Your task to perform on an android device: Search for "beats solo 3" on newegg.com, select the first entry, and add it to the cart. Image 0: 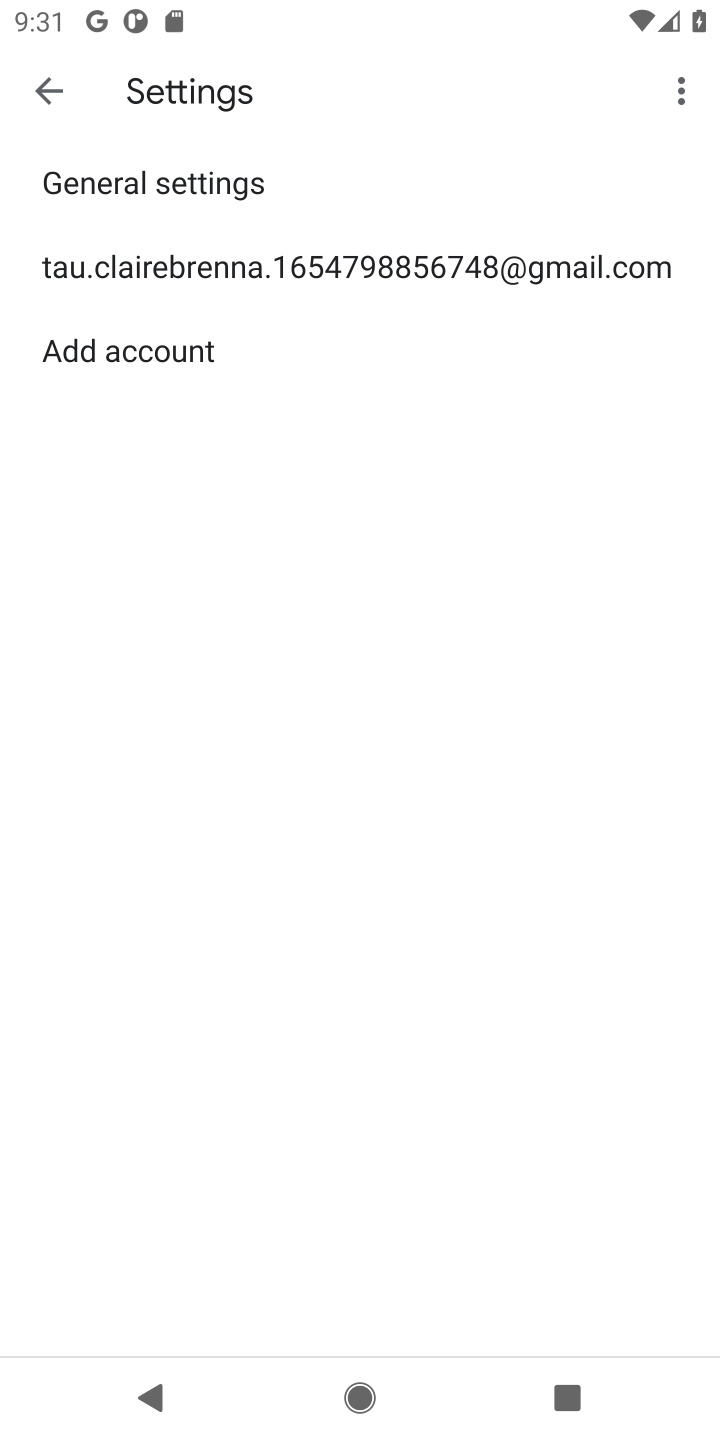
Step 0: press home button
Your task to perform on an android device: Search for "beats solo 3" on newegg.com, select the first entry, and add it to the cart. Image 1: 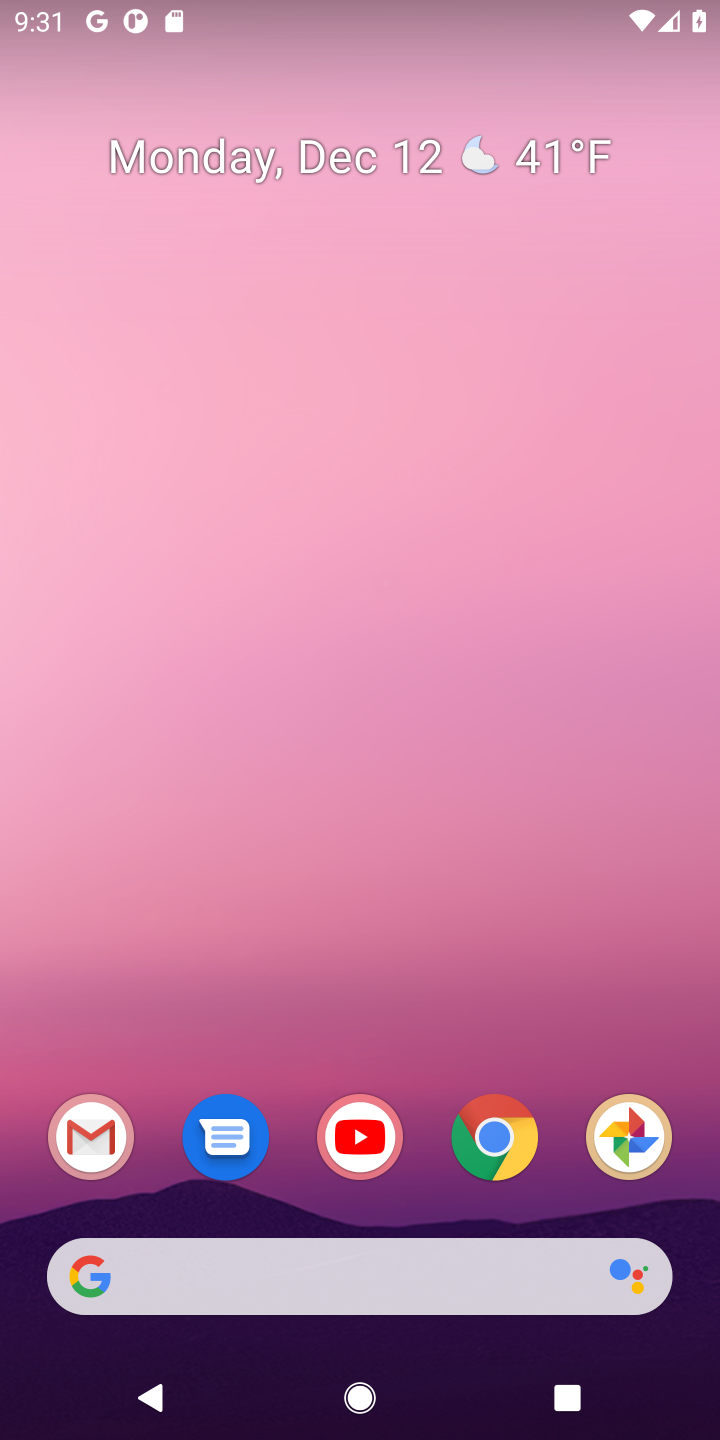
Step 1: click (500, 1121)
Your task to perform on an android device: Search for "beats solo 3" on newegg.com, select the first entry, and add it to the cart. Image 2: 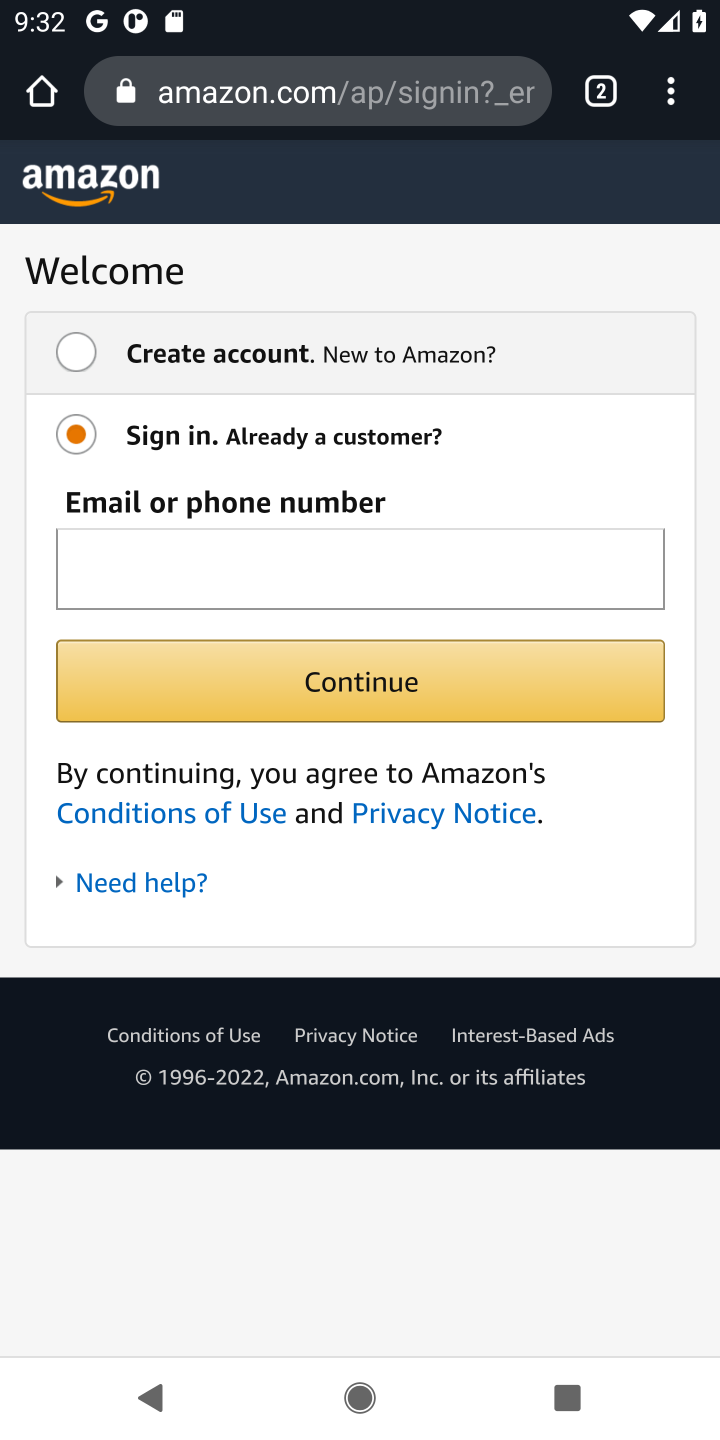
Step 2: click (299, 84)
Your task to perform on an android device: Search for "beats solo 3" on newegg.com, select the first entry, and add it to the cart. Image 3: 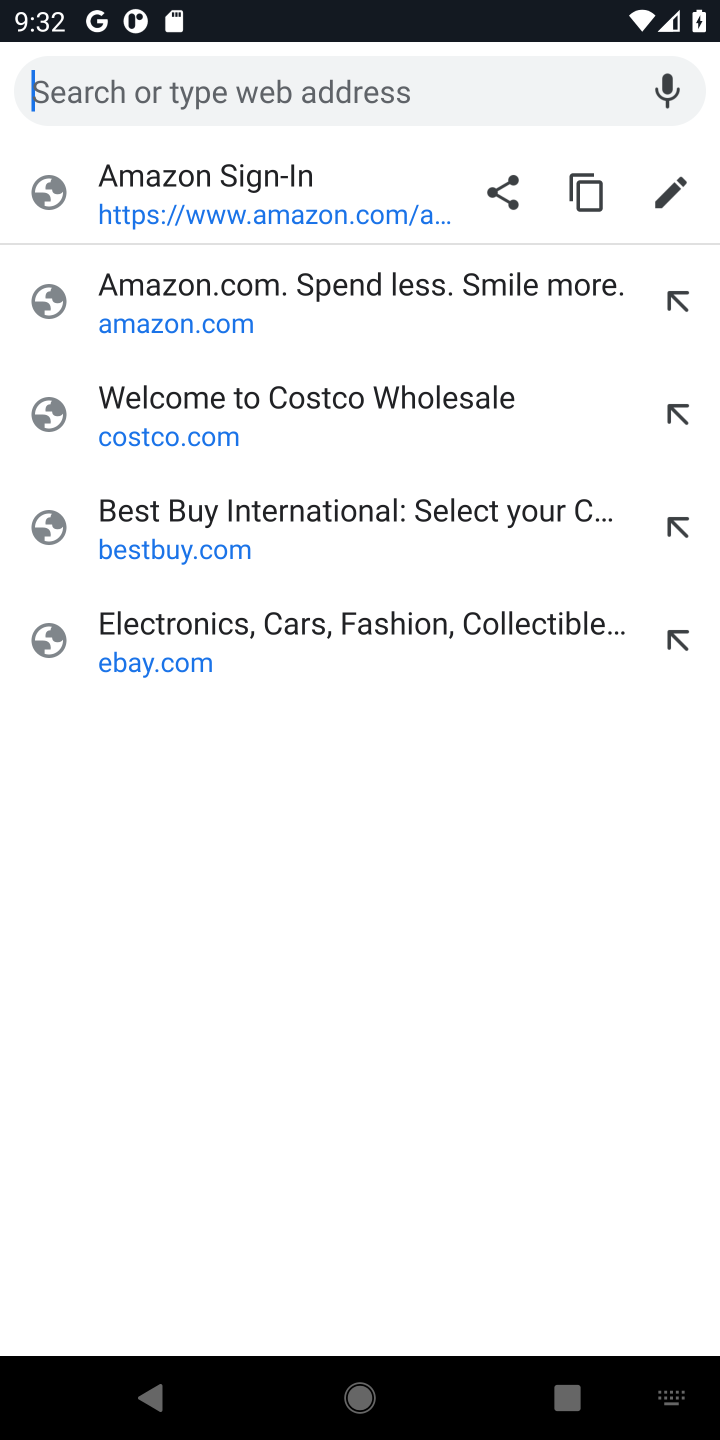
Step 3: type "NEWEGG"
Your task to perform on an android device: Search for "beats solo 3" on newegg.com, select the first entry, and add it to the cart. Image 4: 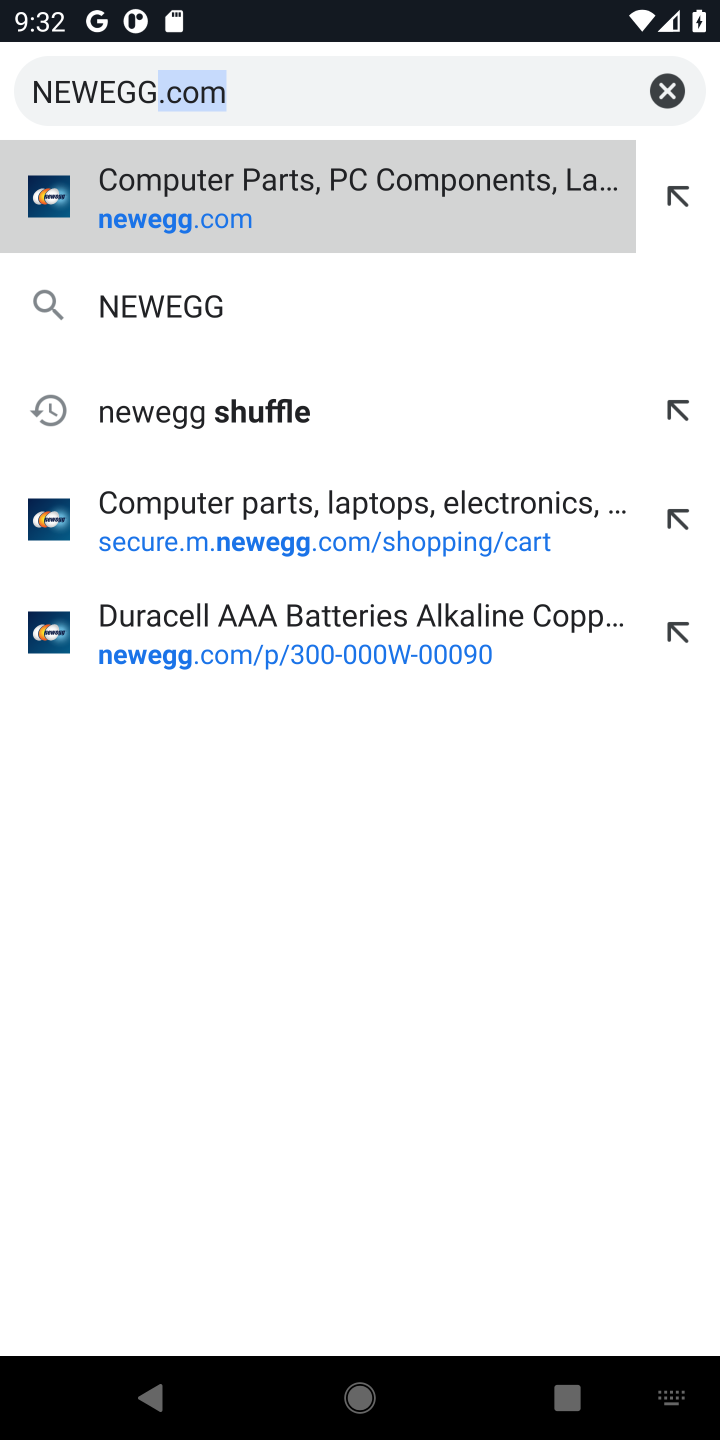
Step 4: click (372, 192)
Your task to perform on an android device: Search for "beats solo 3" on newegg.com, select the first entry, and add it to the cart. Image 5: 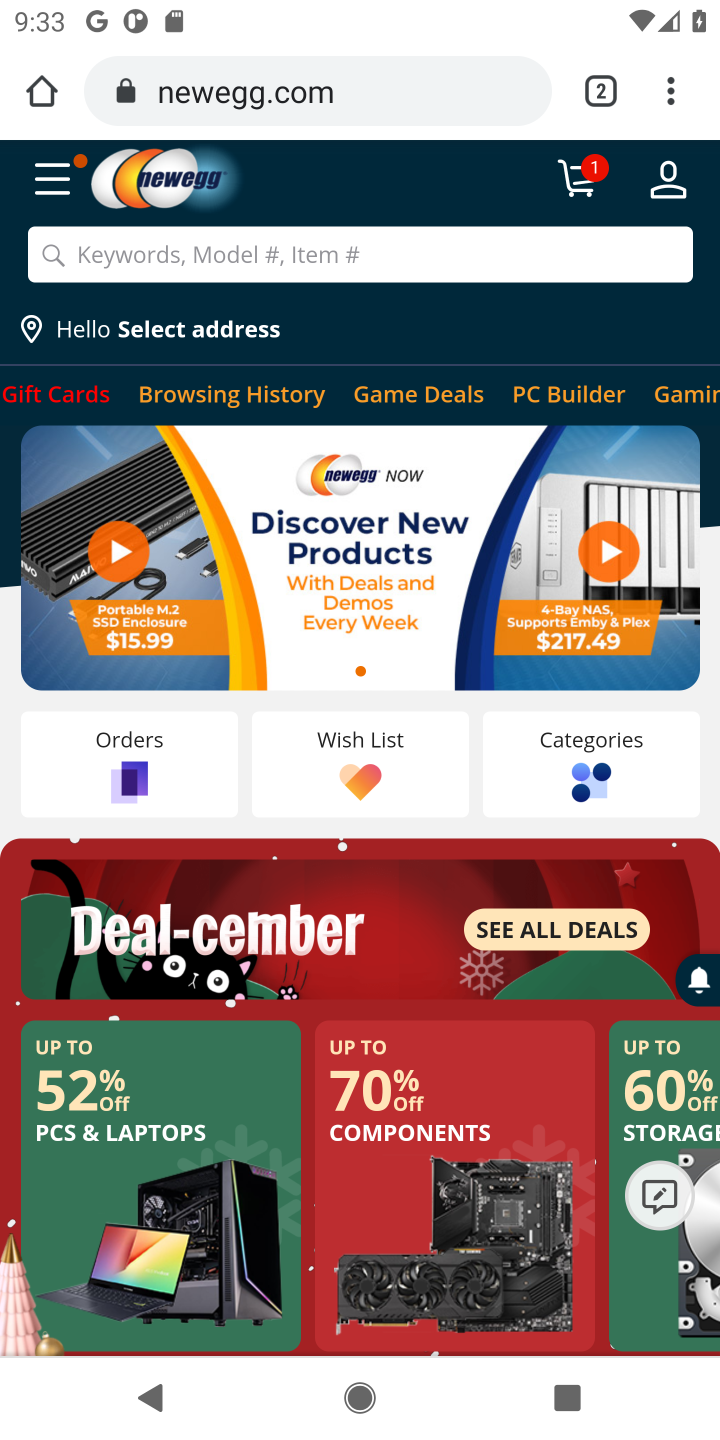
Step 5: click (485, 262)
Your task to perform on an android device: Search for "beats solo 3" on newegg.com, select the first entry, and add it to the cart. Image 6: 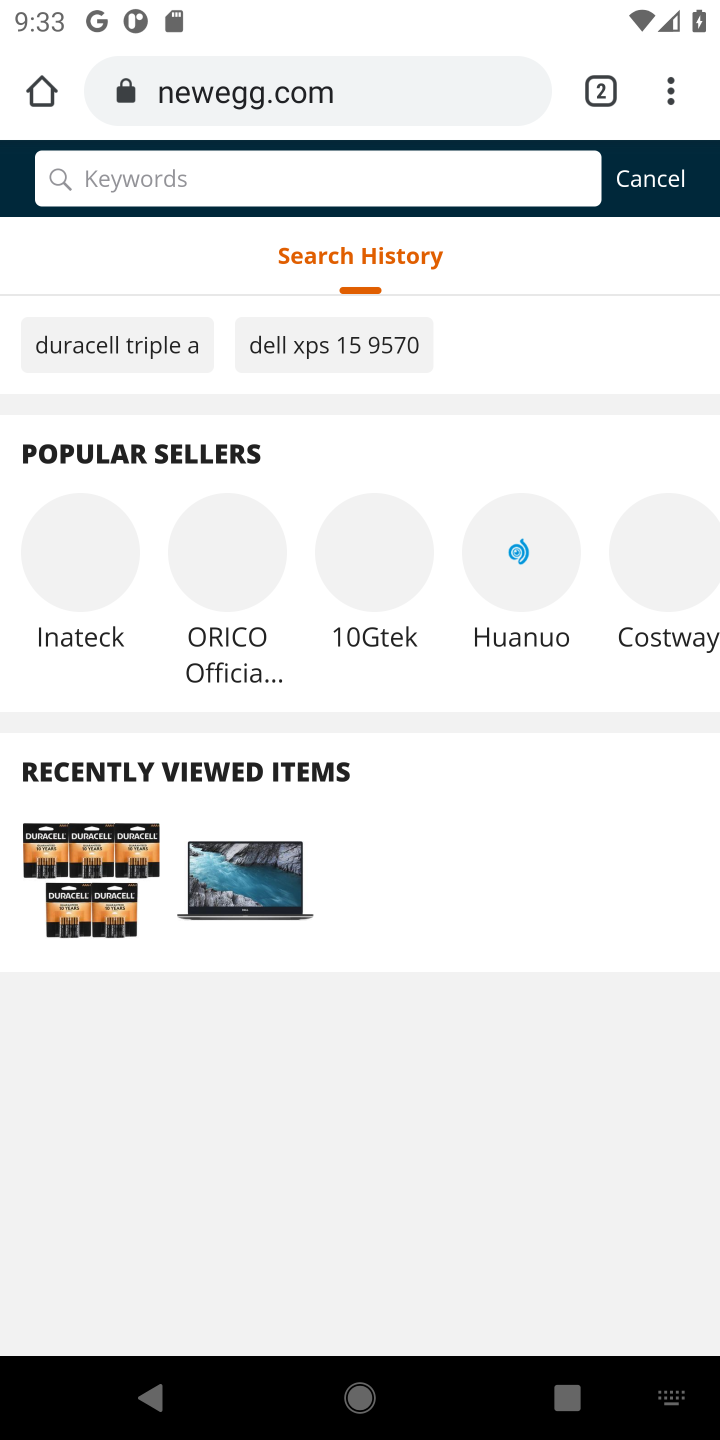
Step 6: type "beats solo 3"
Your task to perform on an android device: Search for "beats solo 3" on newegg.com, select the first entry, and add it to the cart. Image 7: 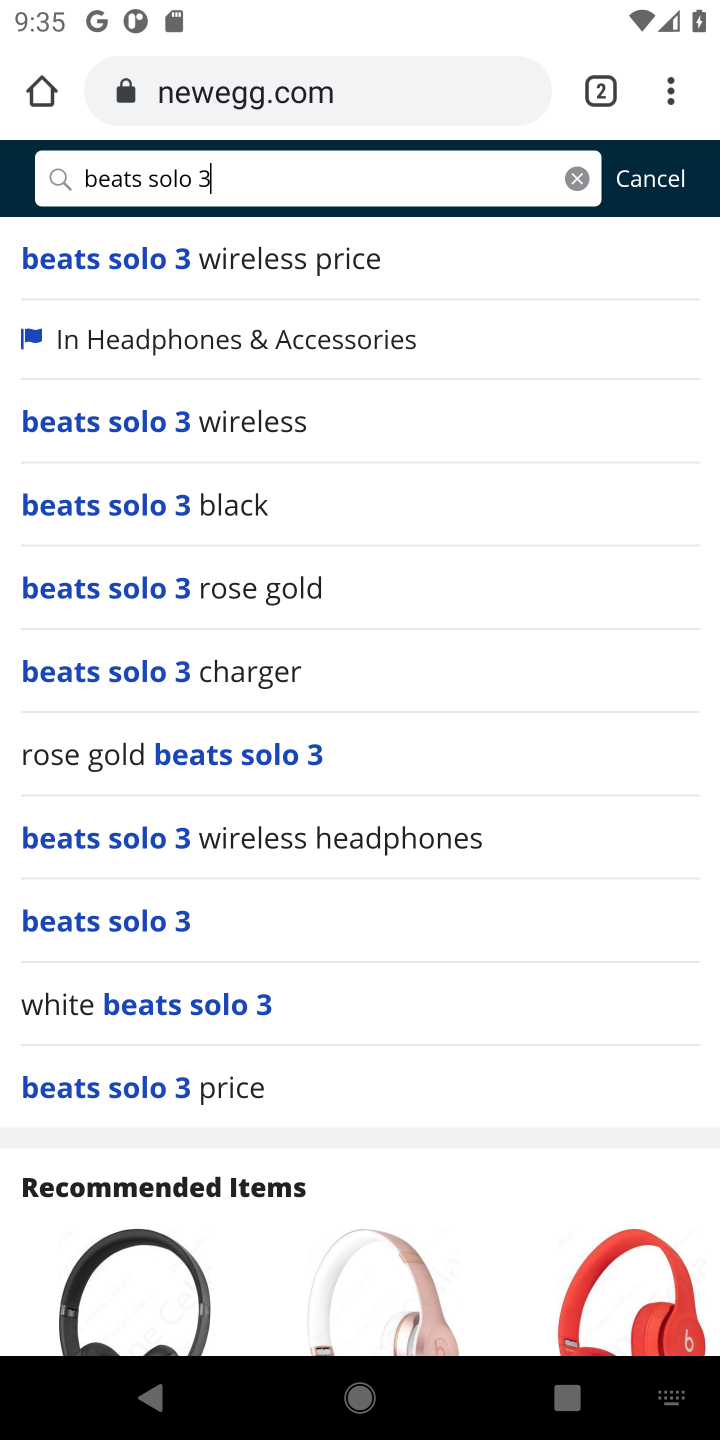
Step 7: click (330, 255)
Your task to perform on an android device: Search for "beats solo 3" on newegg.com, select the first entry, and add it to the cart. Image 8: 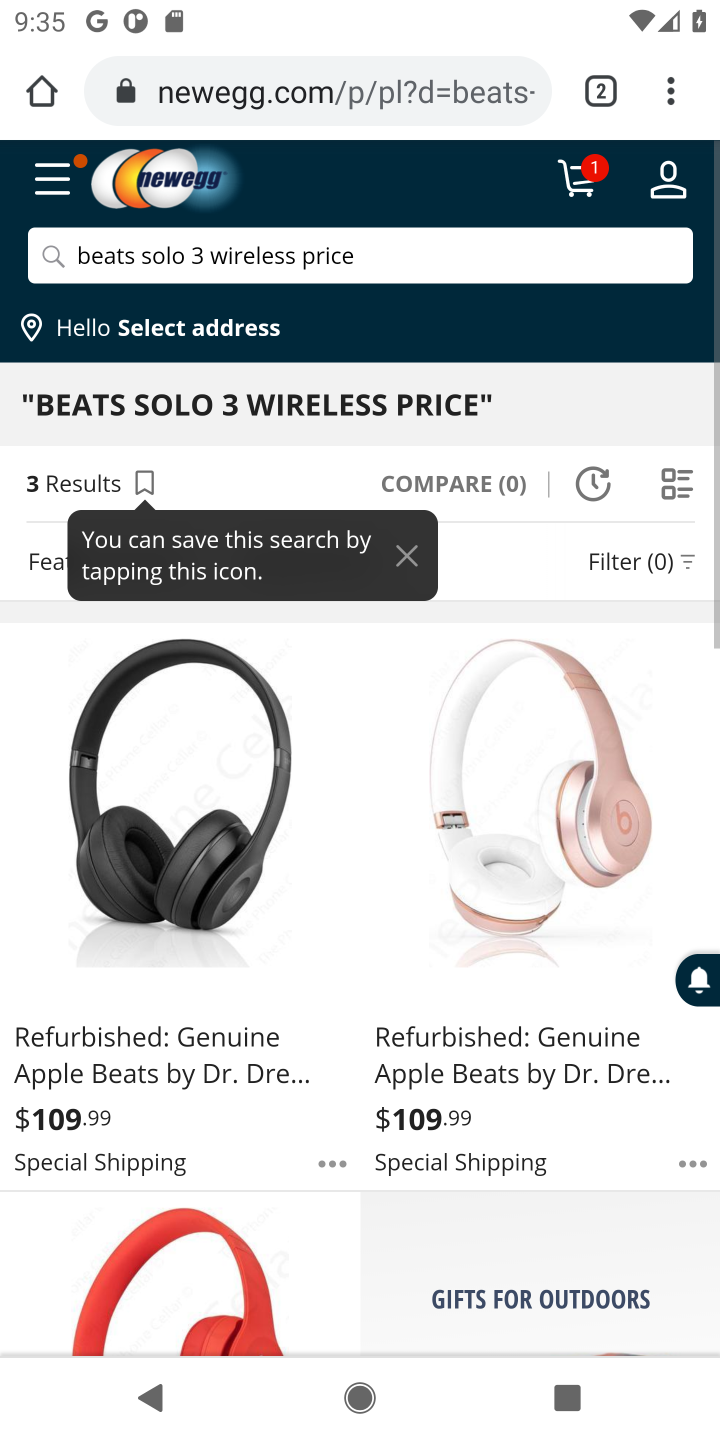
Step 8: click (252, 774)
Your task to perform on an android device: Search for "beats solo 3" on newegg.com, select the first entry, and add it to the cart. Image 9: 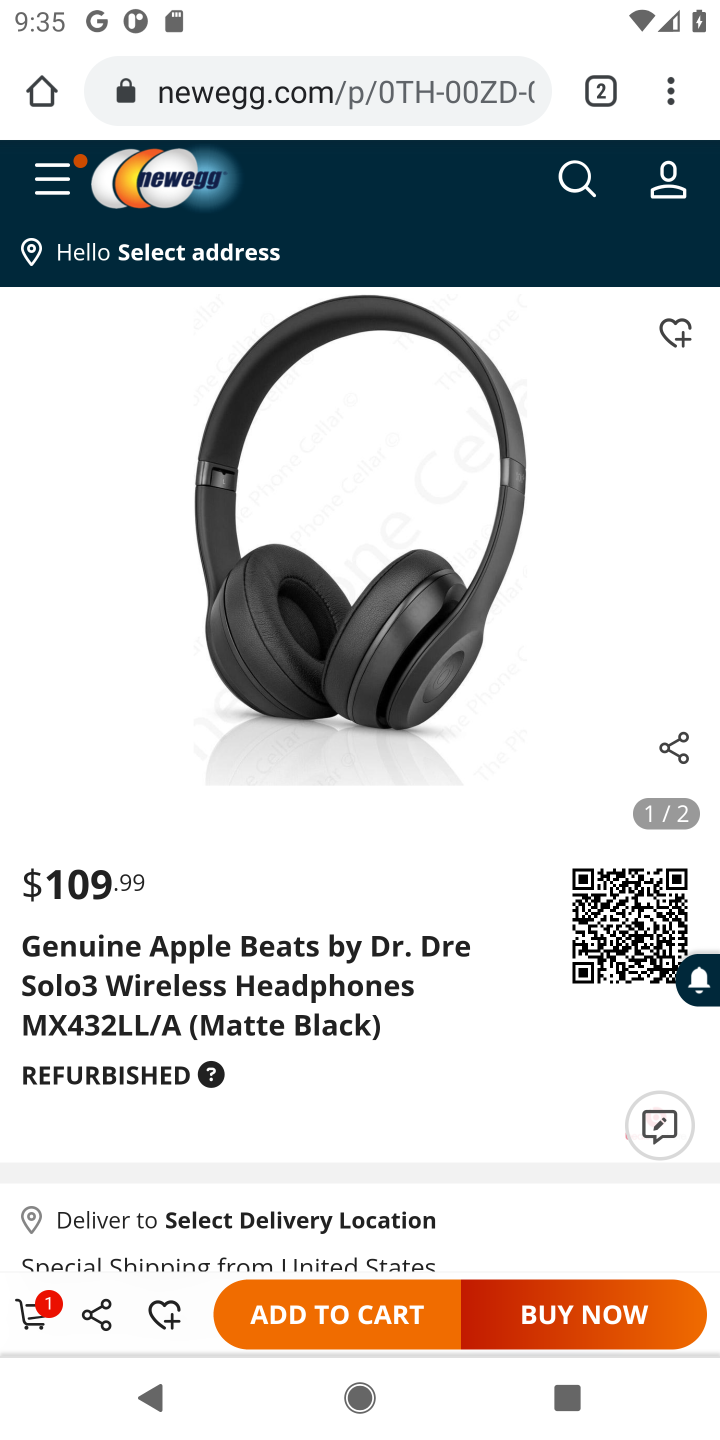
Step 9: click (362, 1302)
Your task to perform on an android device: Search for "beats solo 3" on newegg.com, select the first entry, and add it to the cart. Image 10: 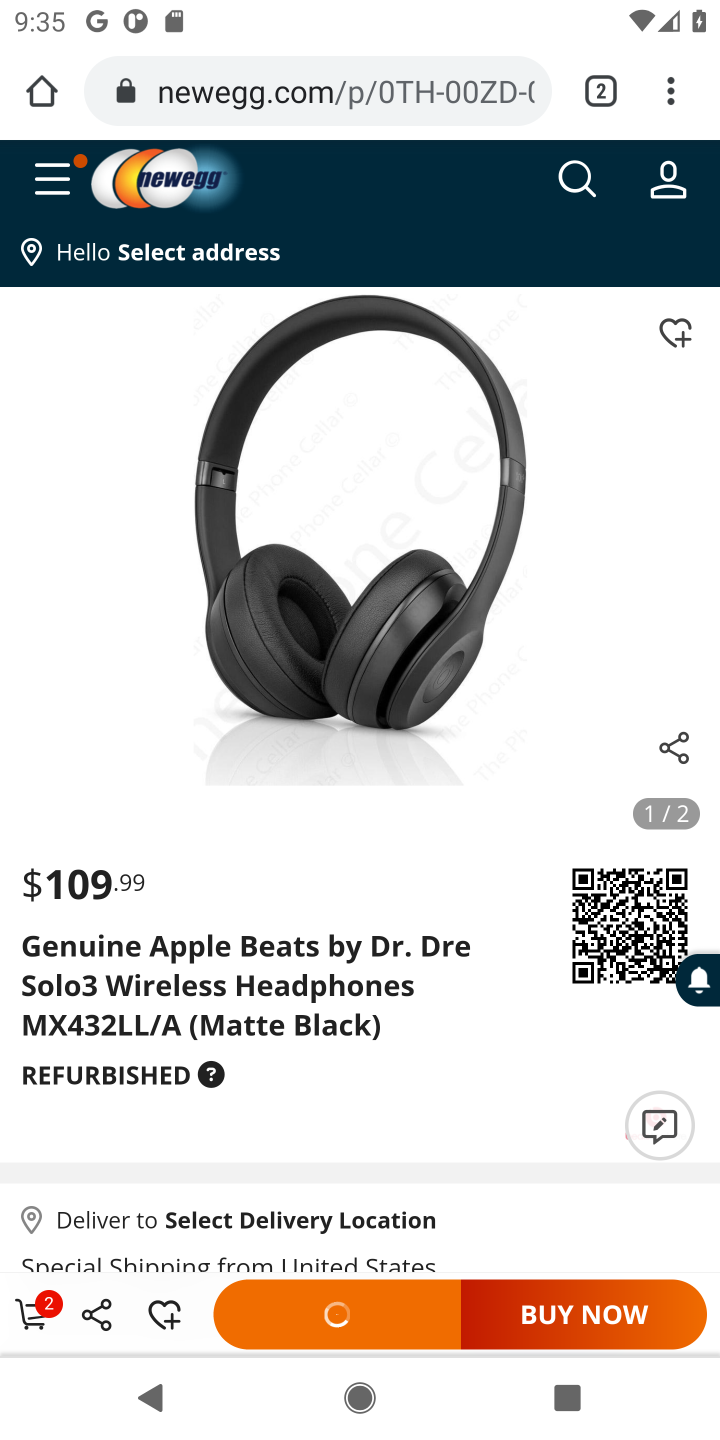
Step 10: task complete